Your task to perform on an android device: read, delete, or share a saved page in the chrome app Image 0: 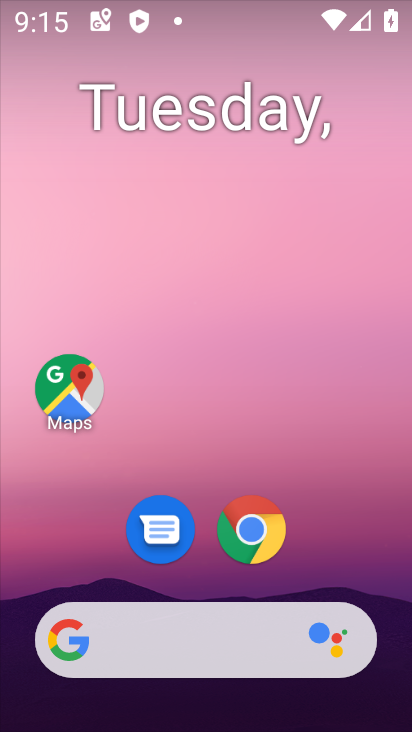
Step 0: drag from (127, 692) to (236, 78)
Your task to perform on an android device: read, delete, or share a saved page in the chrome app Image 1: 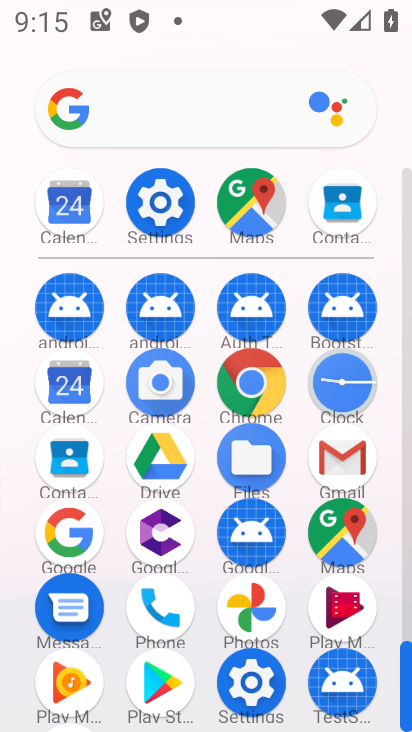
Step 1: click (215, 362)
Your task to perform on an android device: read, delete, or share a saved page in the chrome app Image 2: 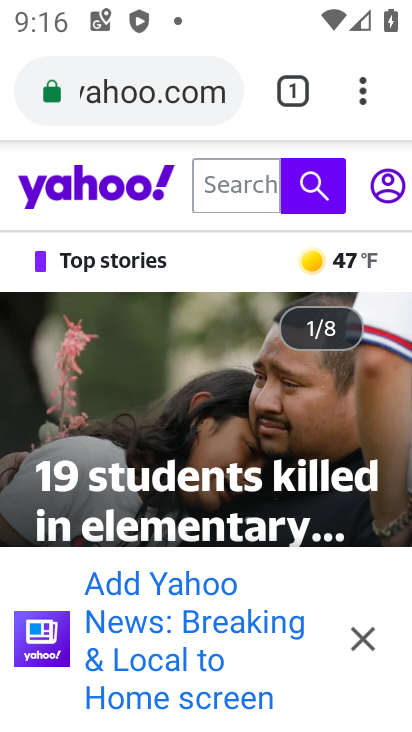
Step 2: click (370, 93)
Your task to perform on an android device: read, delete, or share a saved page in the chrome app Image 3: 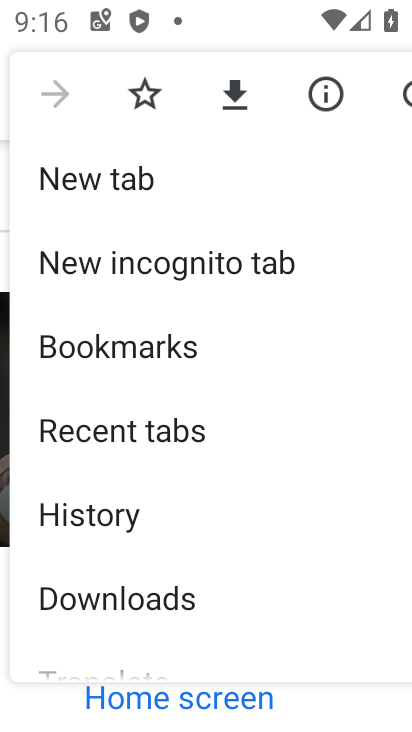
Step 3: click (140, 596)
Your task to perform on an android device: read, delete, or share a saved page in the chrome app Image 4: 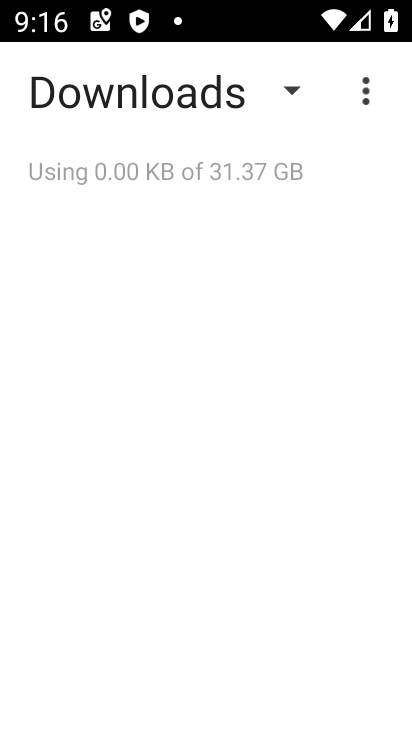
Step 4: click (265, 104)
Your task to perform on an android device: read, delete, or share a saved page in the chrome app Image 5: 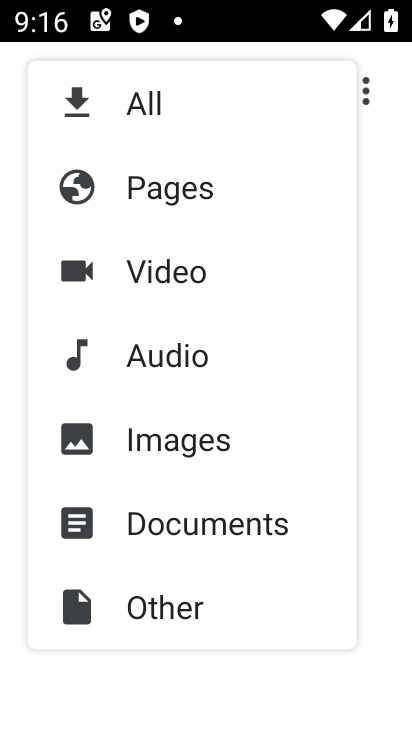
Step 5: click (223, 198)
Your task to perform on an android device: read, delete, or share a saved page in the chrome app Image 6: 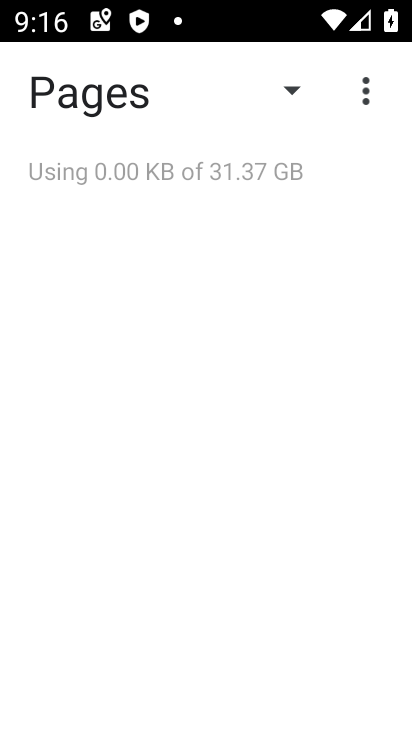
Step 6: task complete